Your task to perform on an android device: turn on translation in the chrome app Image 0: 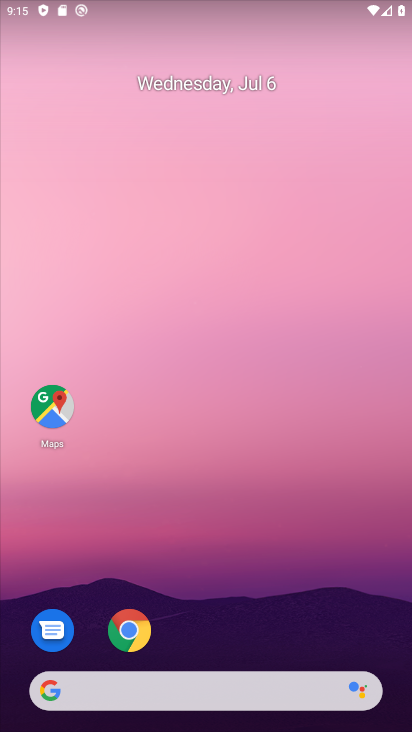
Step 0: click (130, 633)
Your task to perform on an android device: turn on translation in the chrome app Image 1: 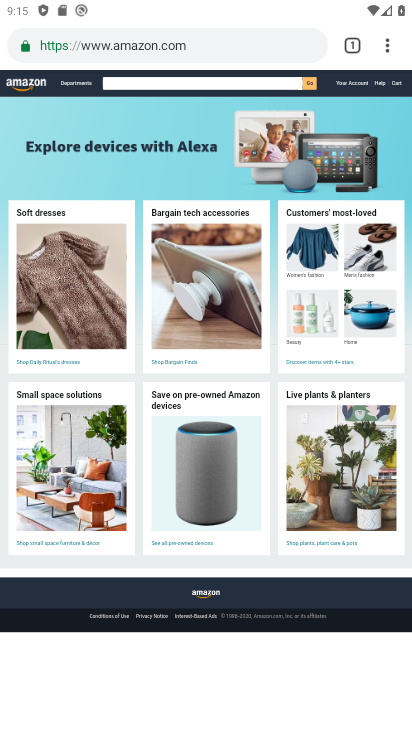
Step 1: click (387, 48)
Your task to perform on an android device: turn on translation in the chrome app Image 2: 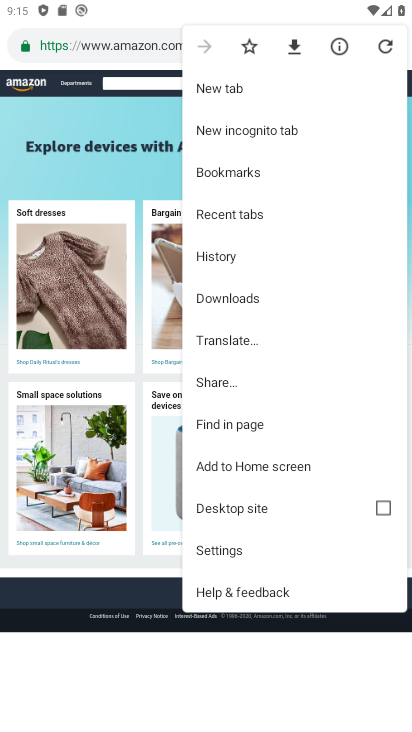
Step 2: click (238, 550)
Your task to perform on an android device: turn on translation in the chrome app Image 3: 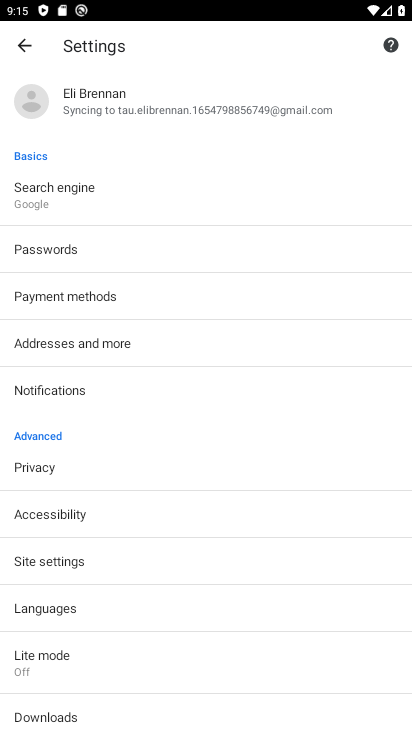
Step 3: click (50, 603)
Your task to perform on an android device: turn on translation in the chrome app Image 4: 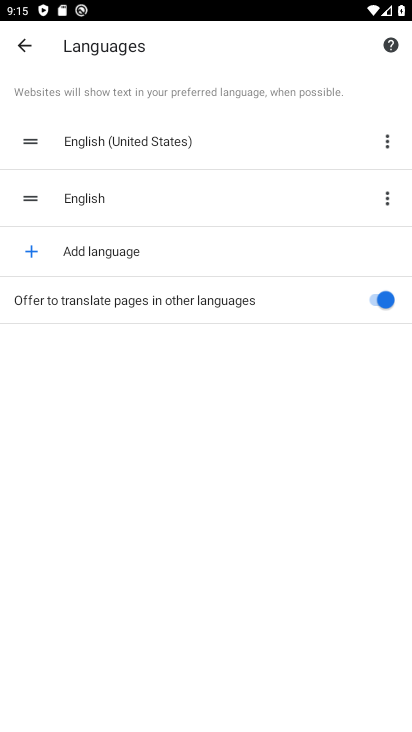
Step 4: task complete